Your task to perform on an android device: Open the phone app and click the voicemail tab. Image 0: 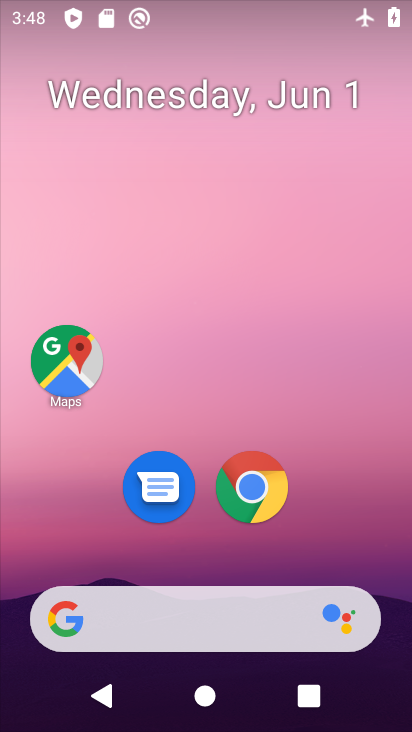
Step 0: press home button
Your task to perform on an android device: Open the phone app and click the voicemail tab. Image 1: 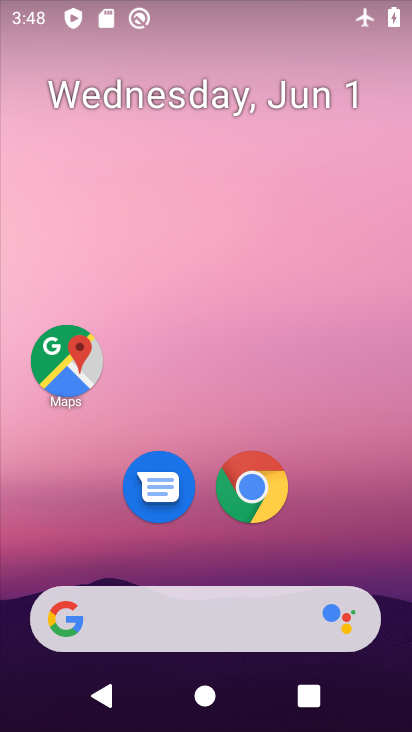
Step 1: drag from (231, 594) to (231, 224)
Your task to perform on an android device: Open the phone app and click the voicemail tab. Image 2: 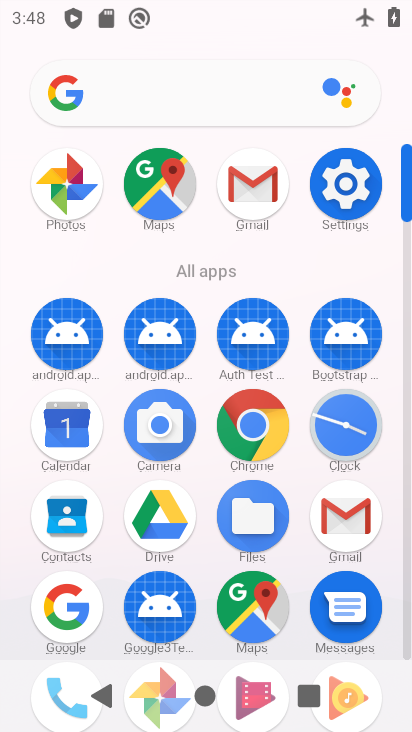
Step 2: drag from (155, 634) to (157, 288)
Your task to perform on an android device: Open the phone app and click the voicemail tab. Image 3: 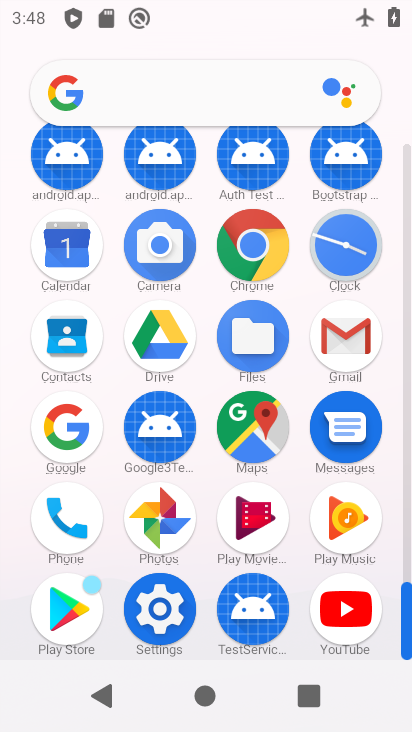
Step 3: click (75, 525)
Your task to perform on an android device: Open the phone app and click the voicemail tab. Image 4: 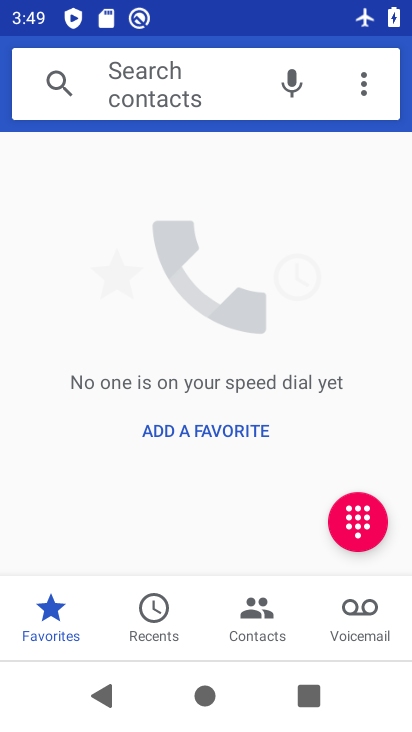
Step 4: click (372, 620)
Your task to perform on an android device: Open the phone app and click the voicemail tab. Image 5: 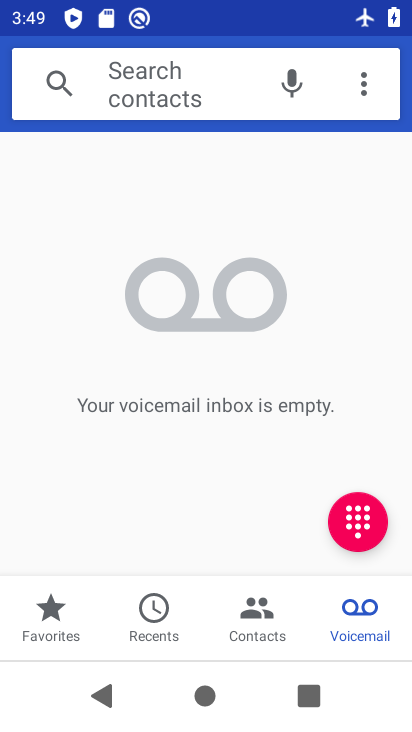
Step 5: task complete